Your task to perform on an android device: Go to settings Image 0: 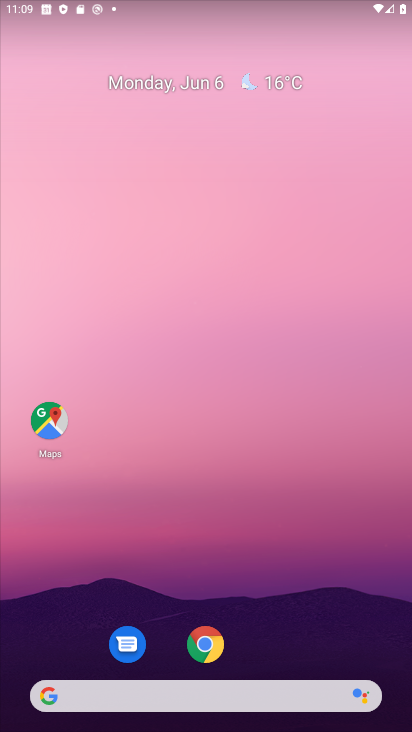
Step 0: drag from (288, 640) to (196, 251)
Your task to perform on an android device: Go to settings Image 1: 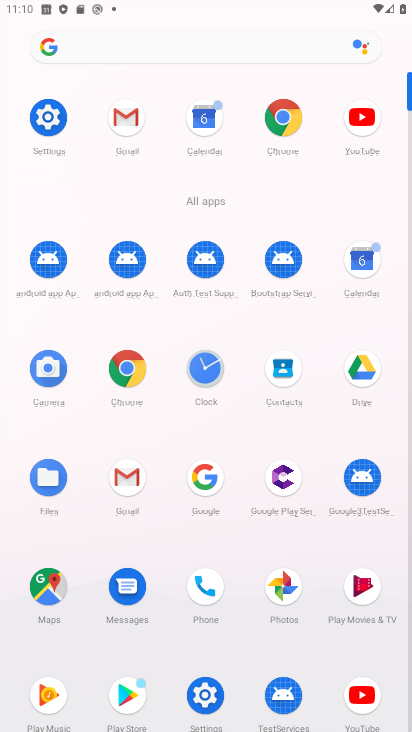
Step 1: click (29, 129)
Your task to perform on an android device: Go to settings Image 2: 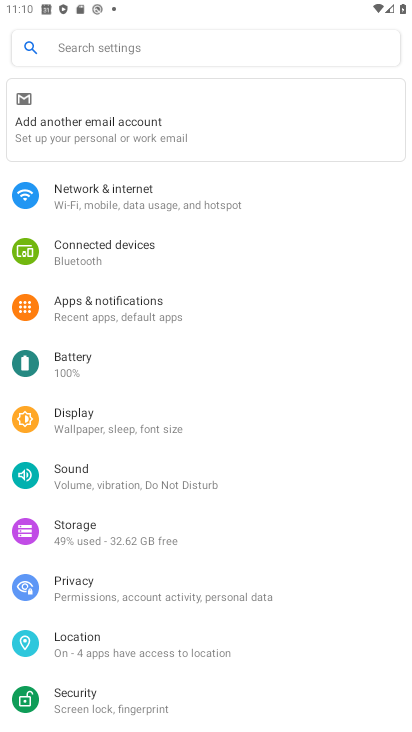
Step 2: task complete